Your task to perform on an android device: Open Wikipedia Image 0: 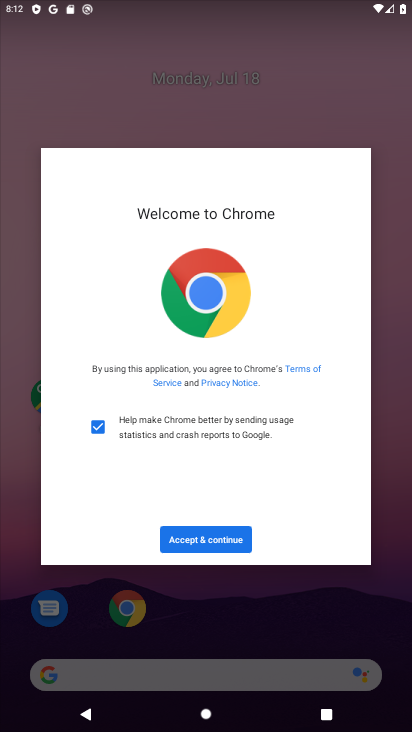
Step 0: click (231, 531)
Your task to perform on an android device: Open Wikipedia Image 1: 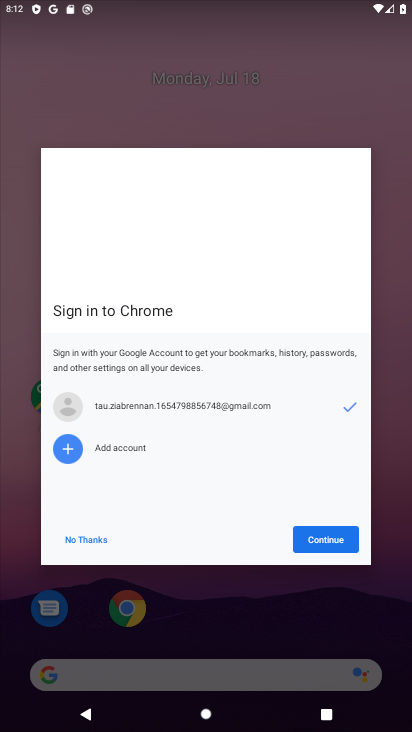
Step 1: click (304, 548)
Your task to perform on an android device: Open Wikipedia Image 2: 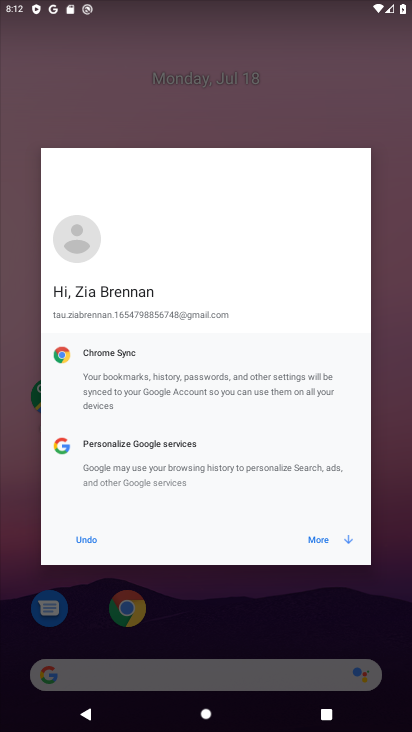
Step 2: click (318, 537)
Your task to perform on an android device: Open Wikipedia Image 3: 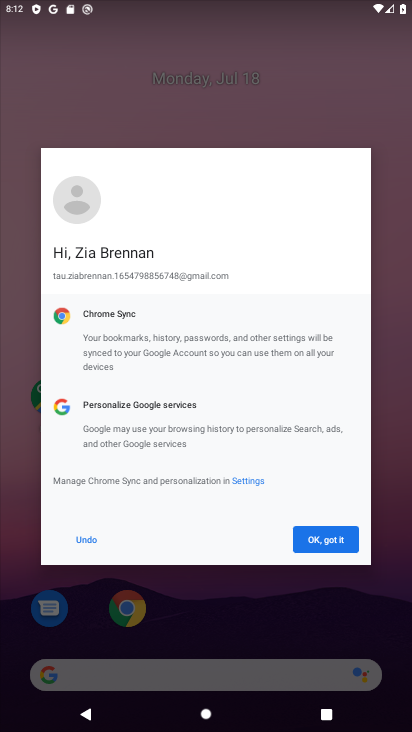
Step 3: click (327, 530)
Your task to perform on an android device: Open Wikipedia Image 4: 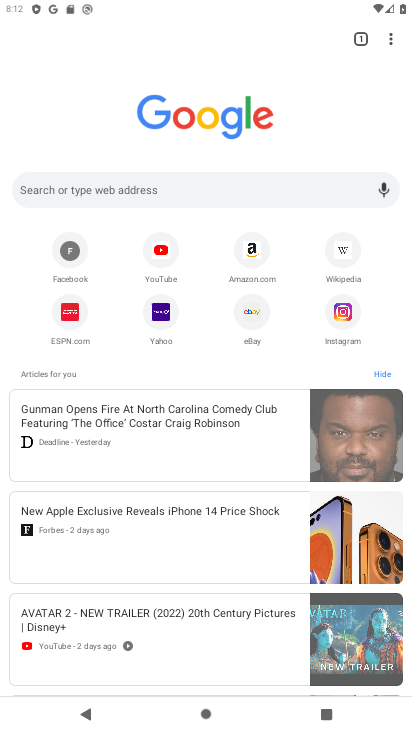
Step 4: click (343, 262)
Your task to perform on an android device: Open Wikipedia Image 5: 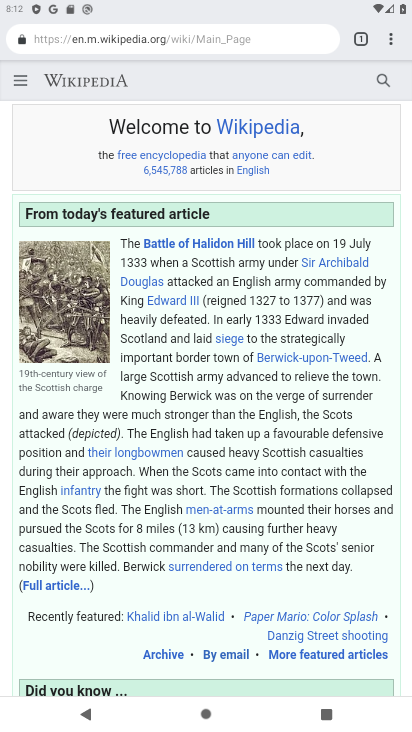
Step 5: task complete